Your task to perform on an android device: empty trash in google photos Image 0: 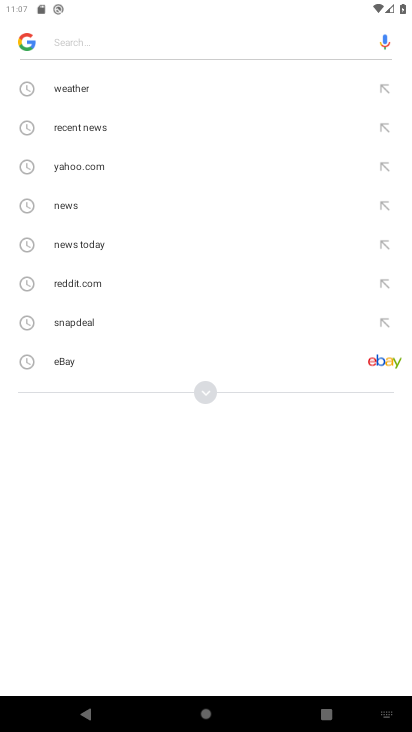
Step 0: press home button
Your task to perform on an android device: empty trash in google photos Image 1: 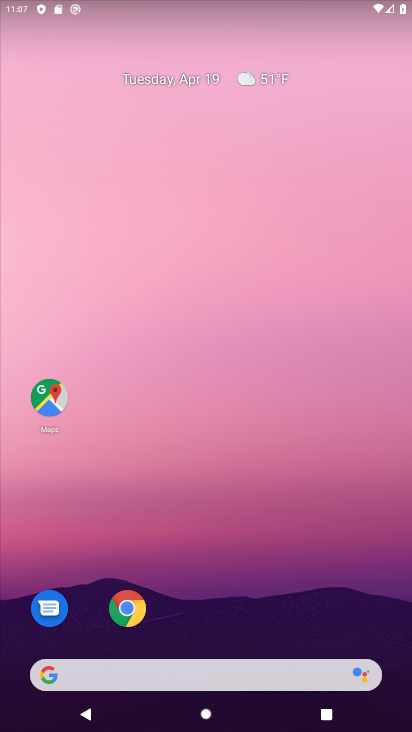
Step 1: drag from (197, 585) to (247, 64)
Your task to perform on an android device: empty trash in google photos Image 2: 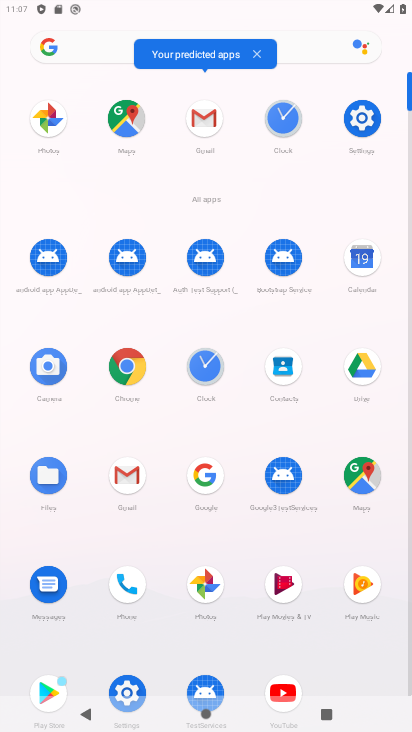
Step 2: click (198, 584)
Your task to perform on an android device: empty trash in google photos Image 3: 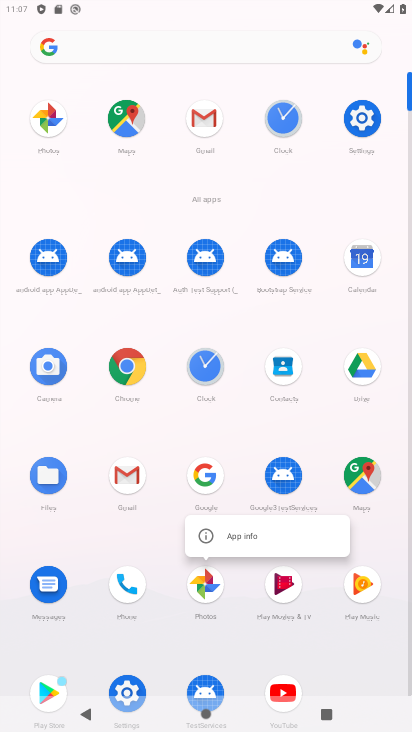
Step 3: click (224, 542)
Your task to perform on an android device: empty trash in google photos Image 4: 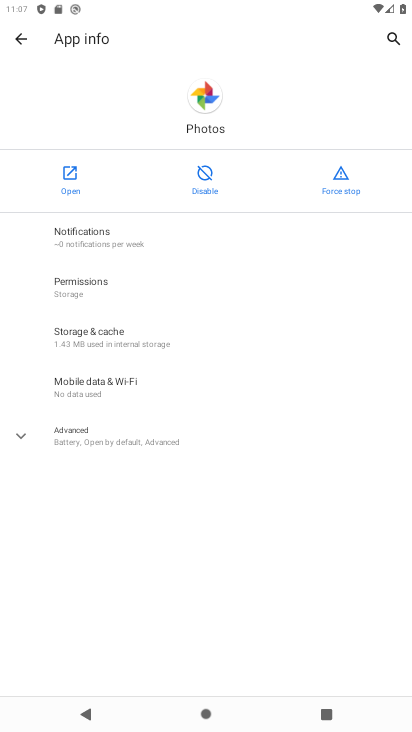
Step 4: click (63, 186)
Your task to perform on an android device: empty trash in google photos Image 5: 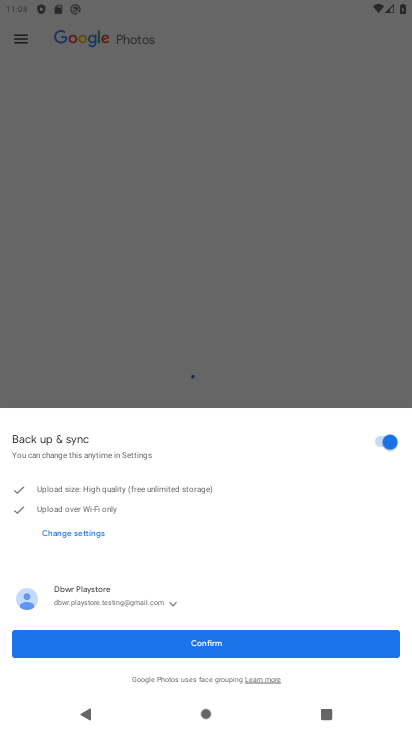
Step 5: click (260, 638)
Your task to perform on an android device: empty trash in google photos Image 6: 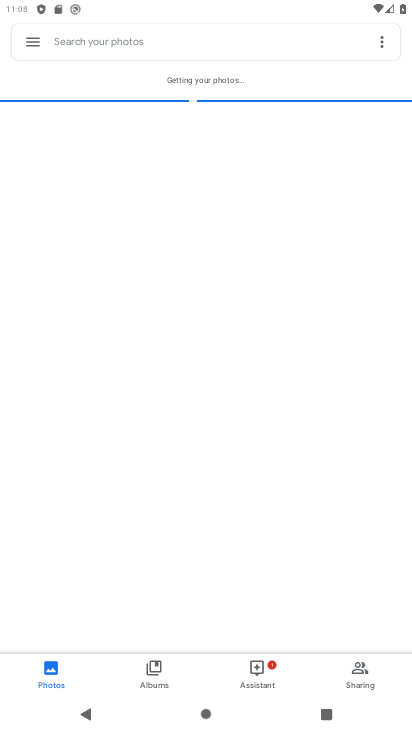
Step 6: click (30, 44)
Your task to perform on an android device: empty trash in google photos Image 7: 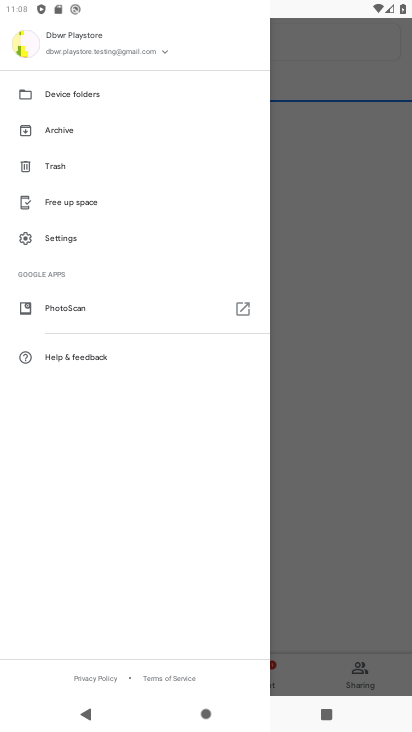
Step 7: click (55, 171)
Your task to perform on an android device: empty trash in google photos Image 8: 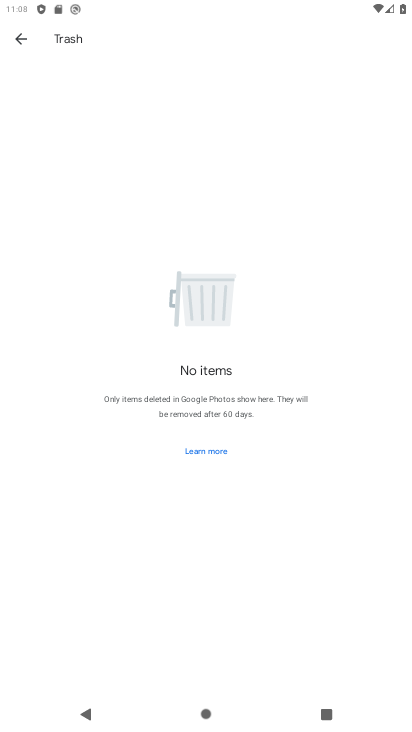
Step 8: task complete